Your task to perform on an android device: check google app version Image 0: 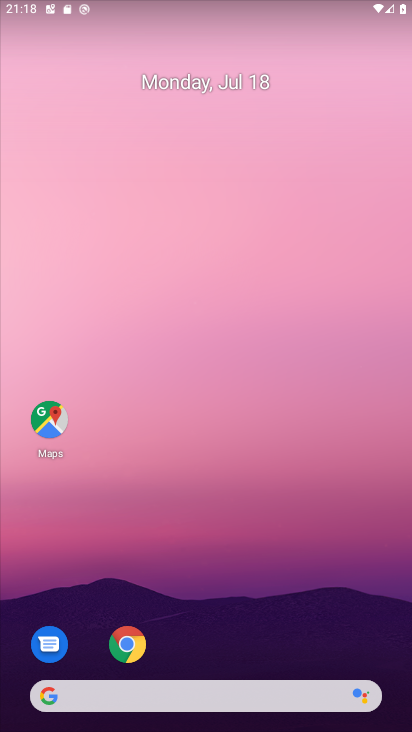
Step 0: click (276, 619)
Your task to perform on an android device: check google app version Image 1: 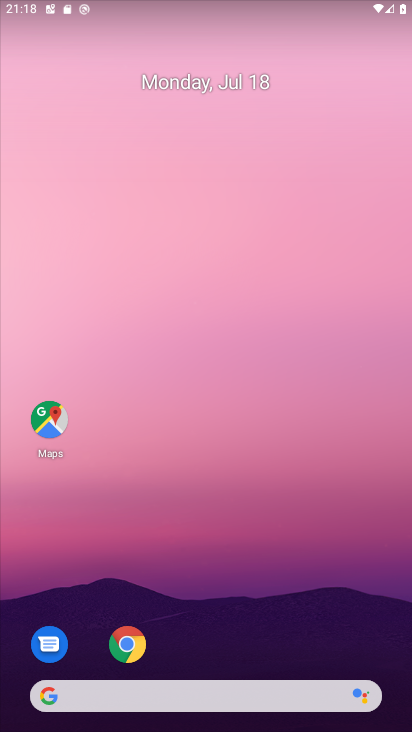
Step 1: click (118, 642)
Your task to perform on an android device: check google app version Image 2: 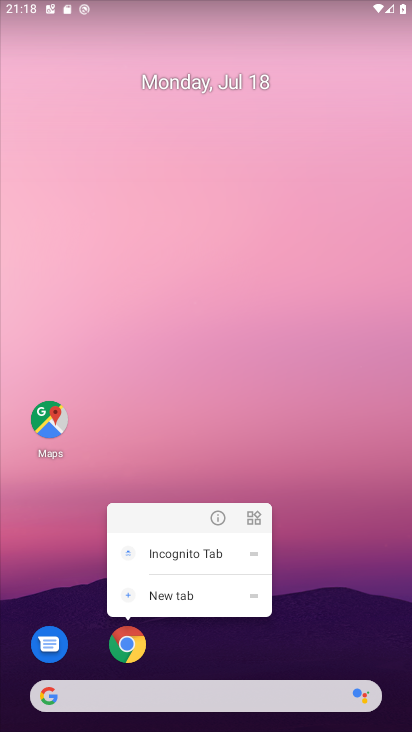
Step 2: click (214, 521)
Your task to perform on an android device: check google app version Image 3: 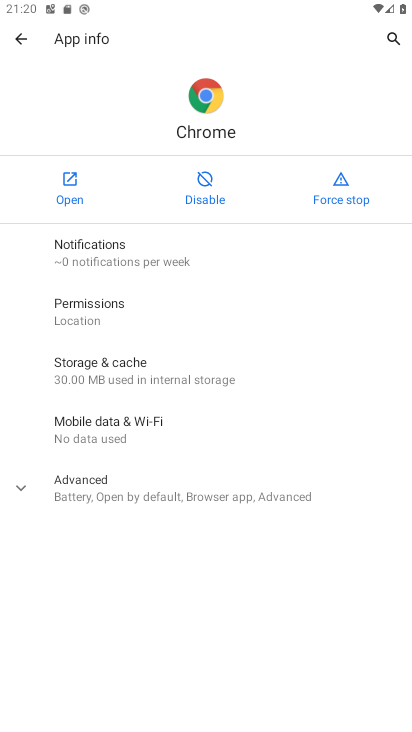
Step 3: task complete